Your task to perform on an android device: turn on data saver in the chrome app Image 0: 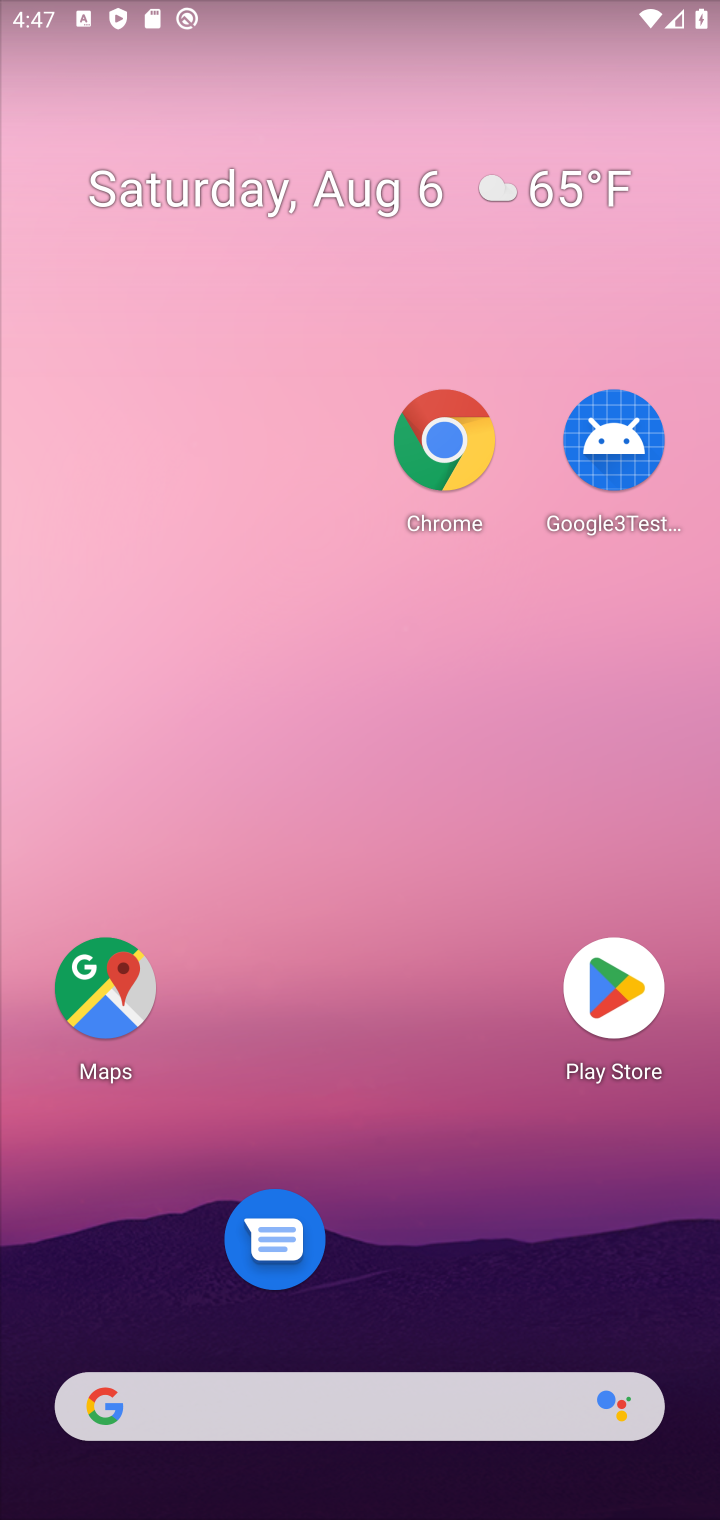
Step 0: drag from (472, 1416) to (430, 57)
Your task to perform on an android device: turn on data saver in the chrome app Image 1: 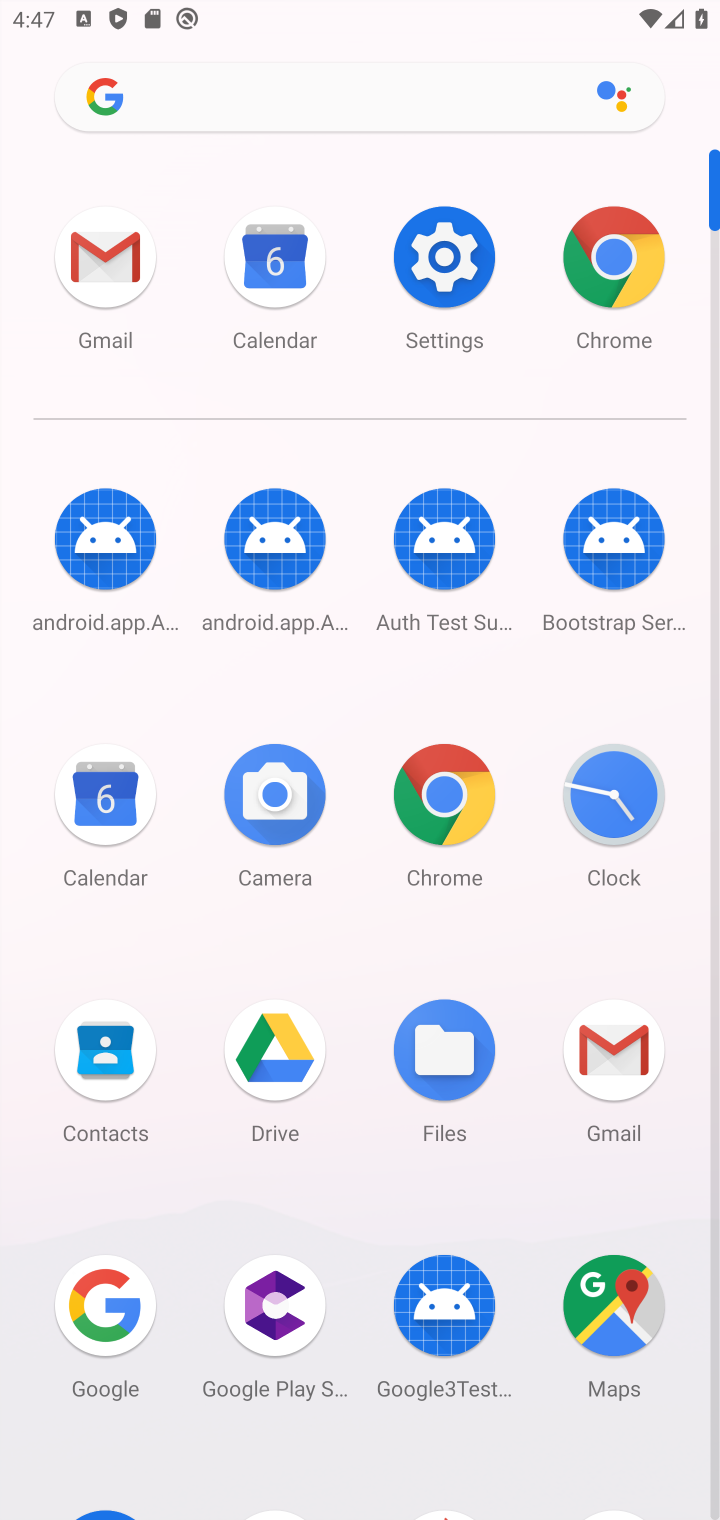
Step 1: click (443, 808)
Your task to perform on an android device: turn on data saver in the chrome app Image 2: 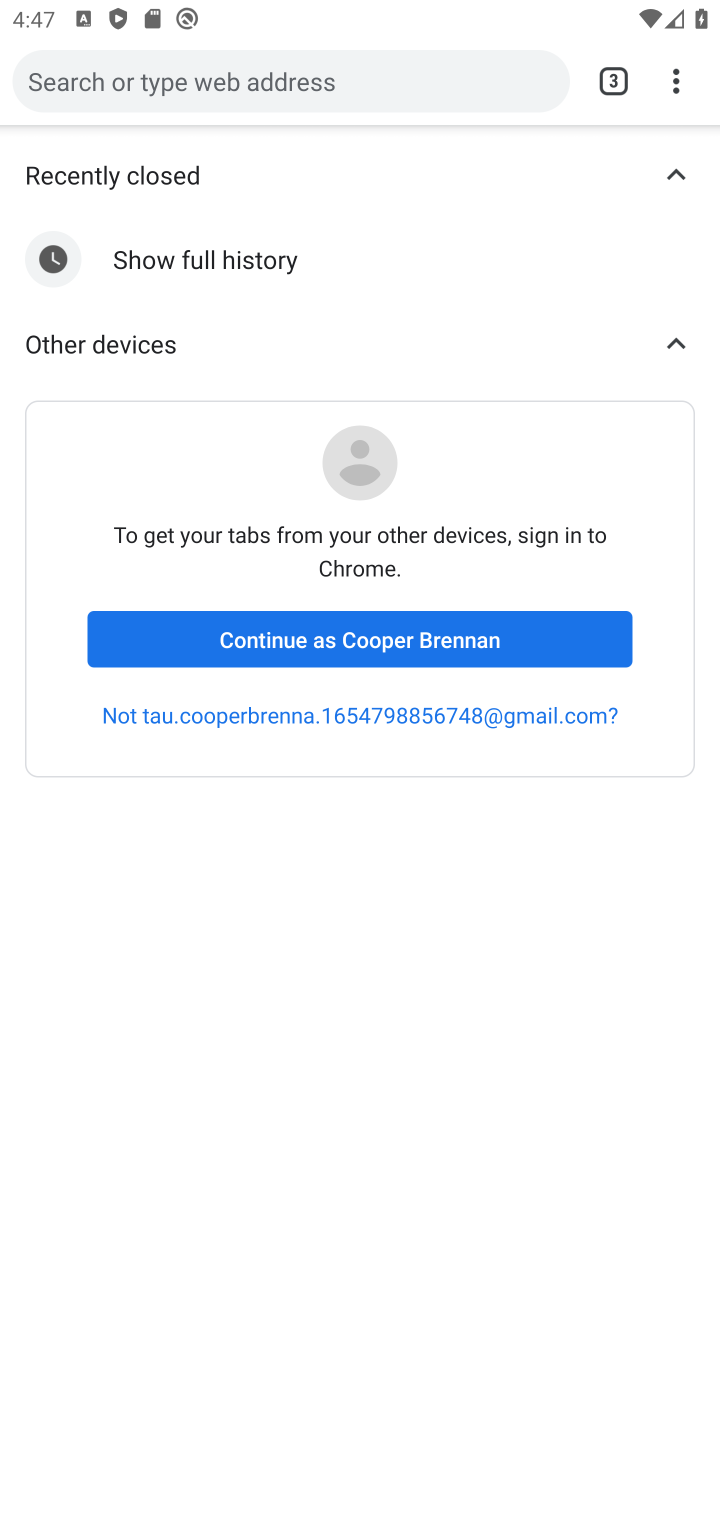
Step 2: drag from (683, 76) to (432, 670)
Your task to perform on an android device: turn on data saver in the chrome app Image 3: 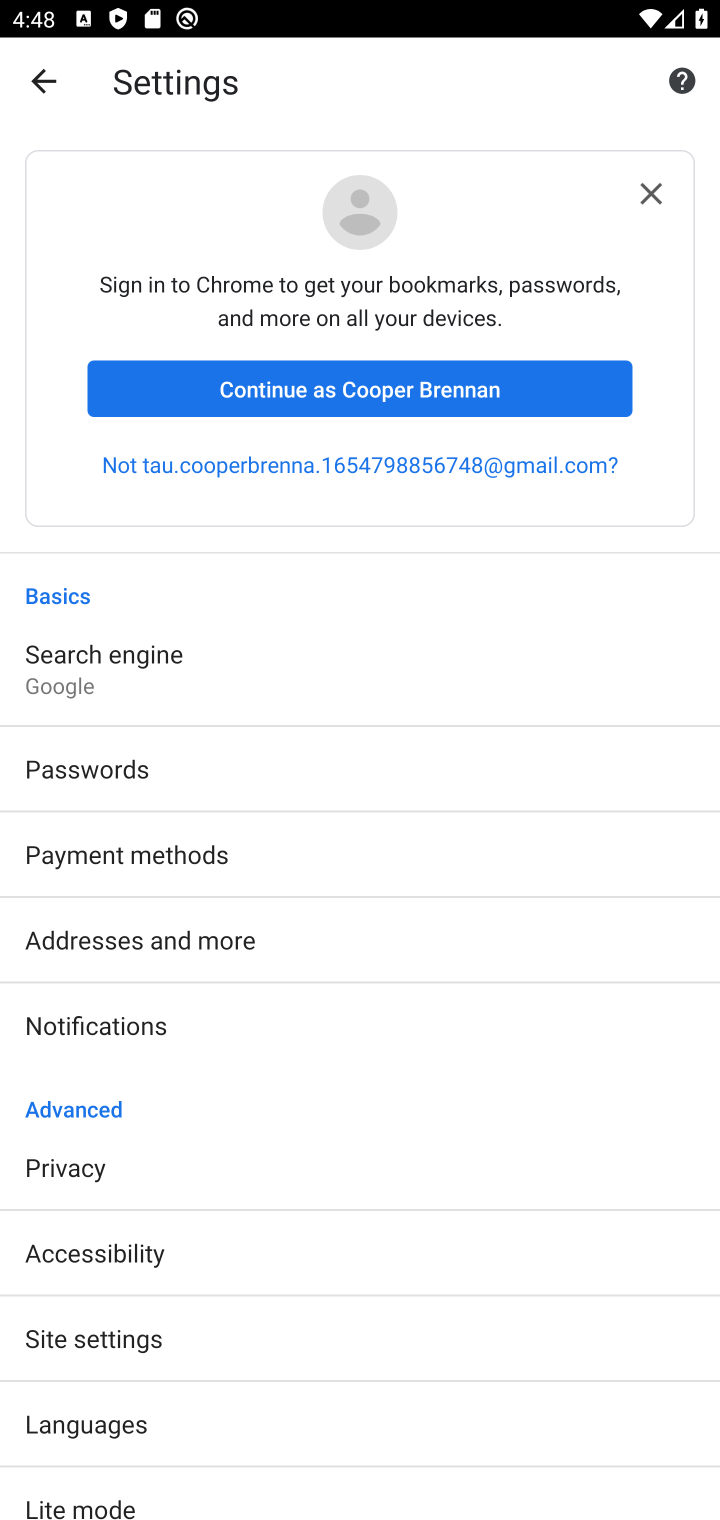
Step 3: drag from (291, 1405) to (290, 769)
Your task to perform on an android device: turn on data saver in the chrome app Image 4: 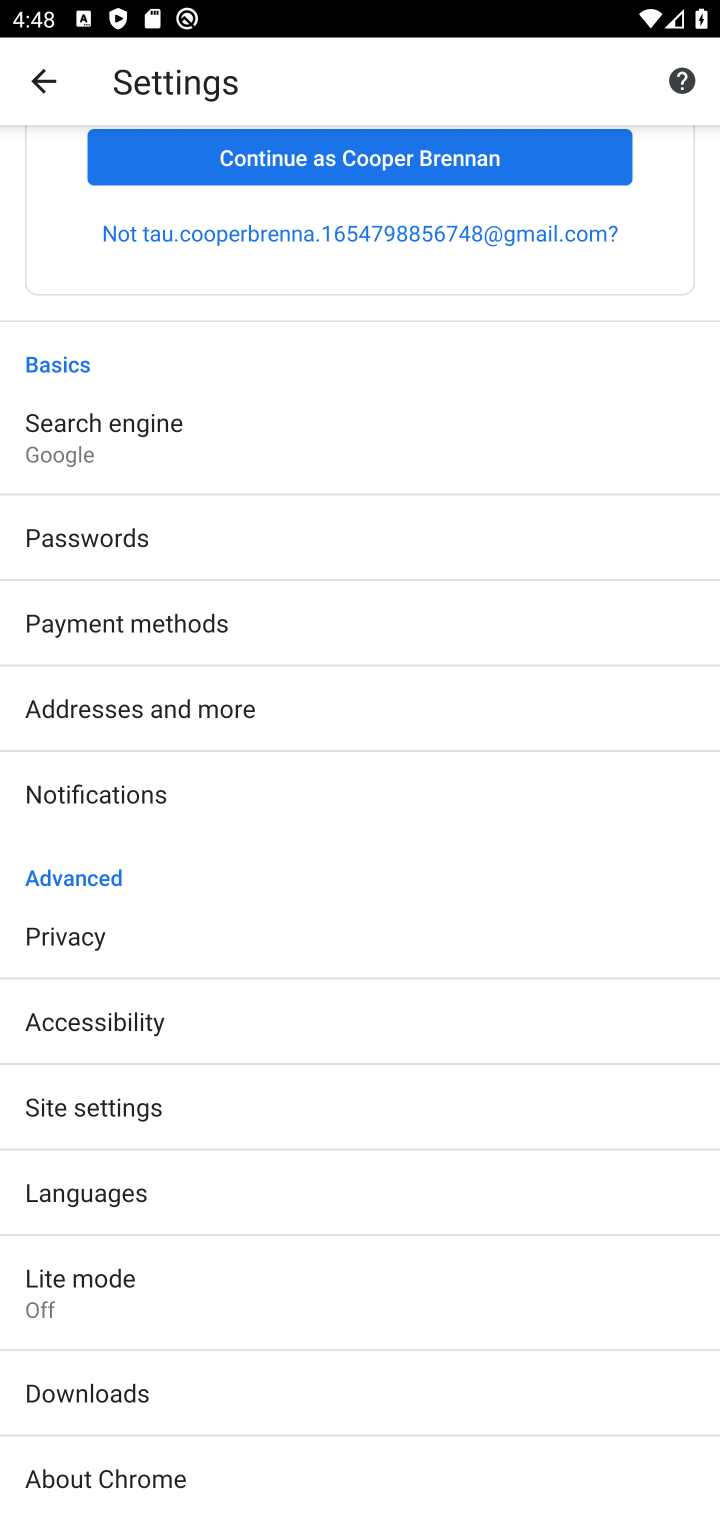
Step 4: click (158, 1284)
Your task to perform on an android device: turn on data saver in the chrome app Image 5: 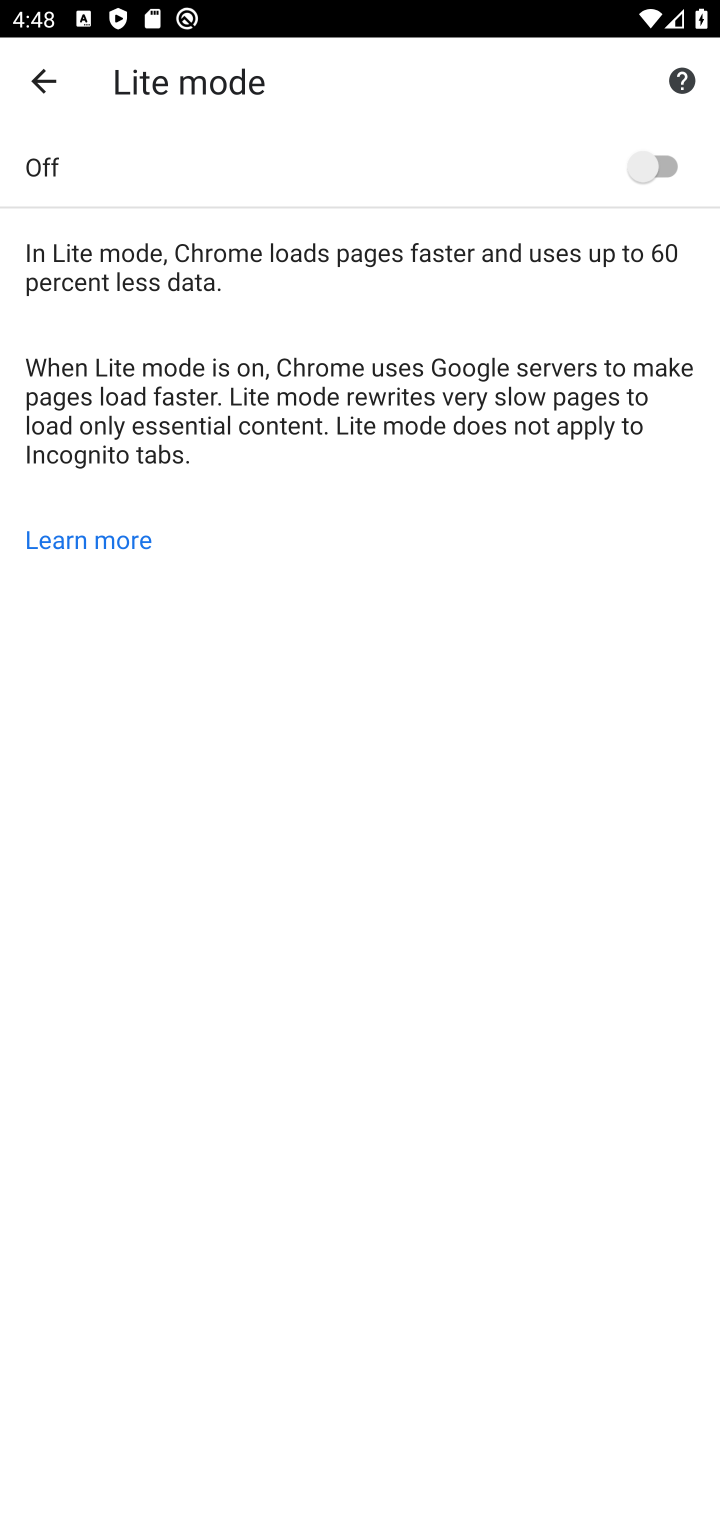
Step 5: click (664, 159)
Your task to perform on an android device: turn on data saver in the chrome app Image 6: 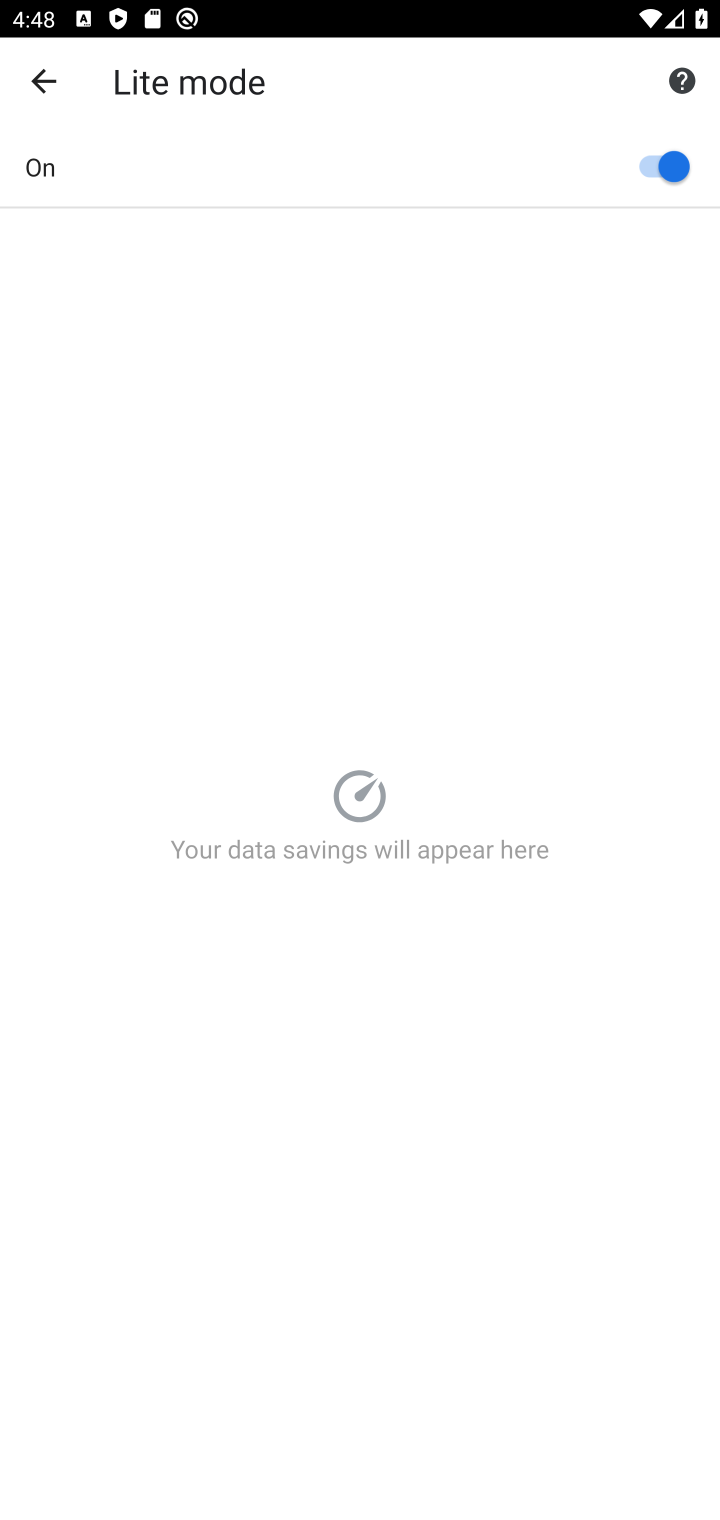
Step 6: task complete